Your task to perform on an android device: Go to CNN.com Image 0: 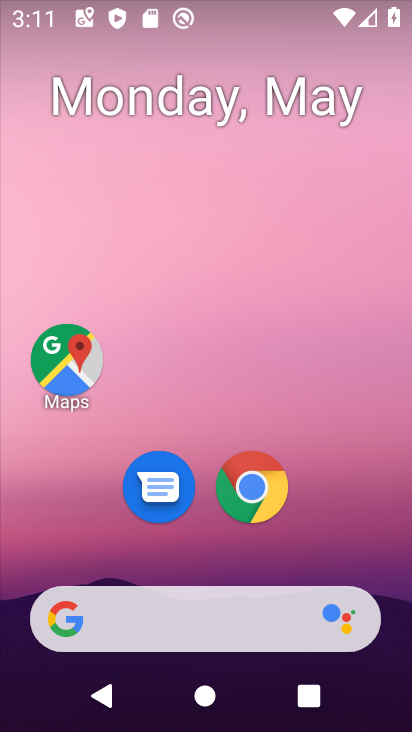
Step 0: drag from (214, 554) to (341, 62)
Your task to perform on an android device: Go to CNN.com Image 1: 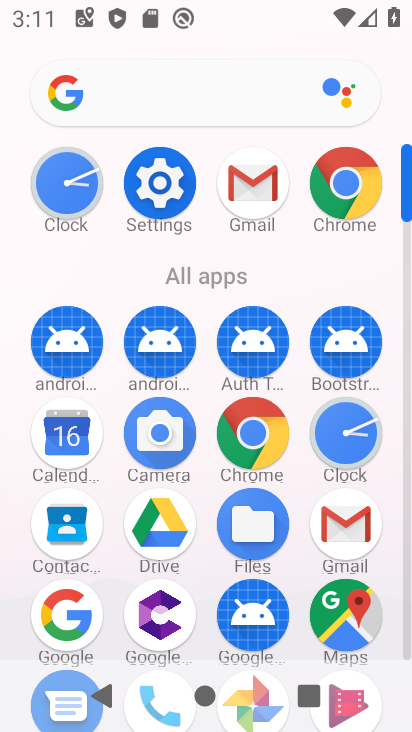
Step 1: click (183, 91)
Your task to perform on an android device: Go to CNN.com Image 2: 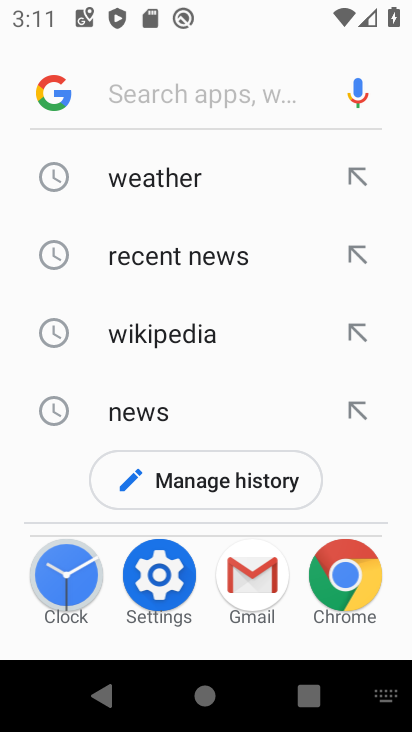
Step 2: type "cnn"
Your task to perform on an android device: Go to CNN.com Image 3: 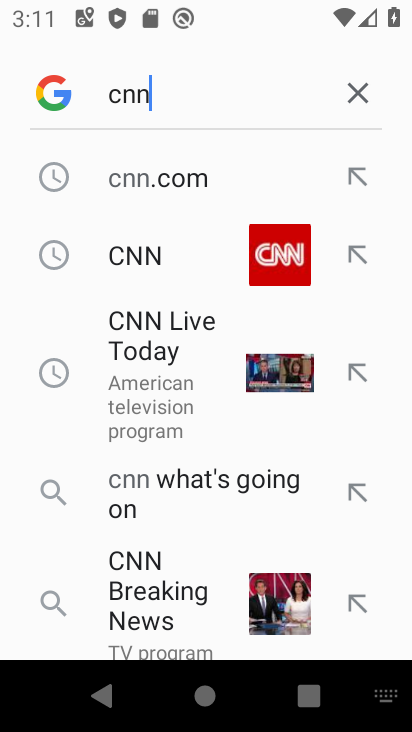
Step 3: click (219, 174)
Your task to perform on an android device: Go to CNN.com Image 4: 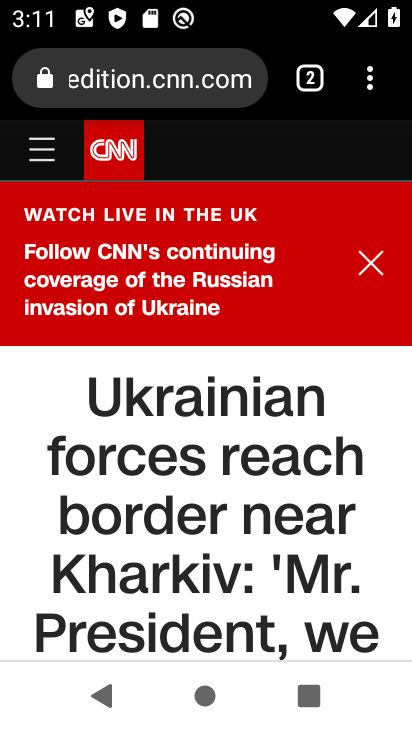
Step 4: task complete